Your task to perform on an android device: Go to accessibility settings Image 0: 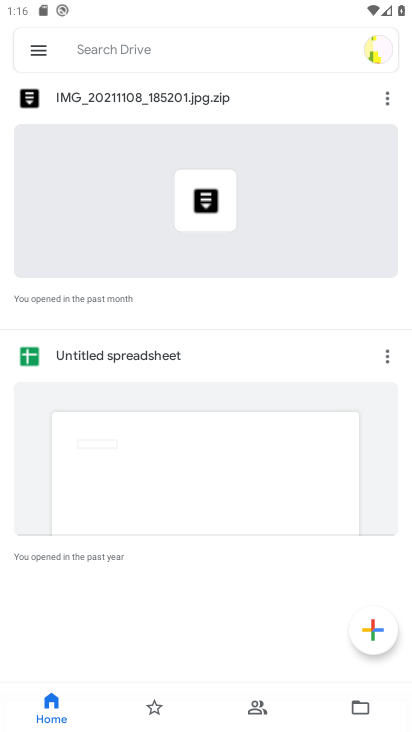
Step 0: press back button
Your task to perform on an android device: Go to accessibility settings Image 1: 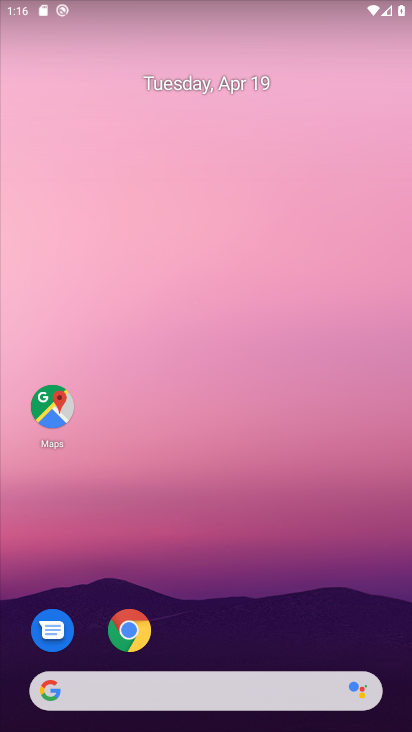
Step 1: drag from (243, 585) to (317, 26)
Your task to perform on an android device: Go to accessibility settings Image 2: 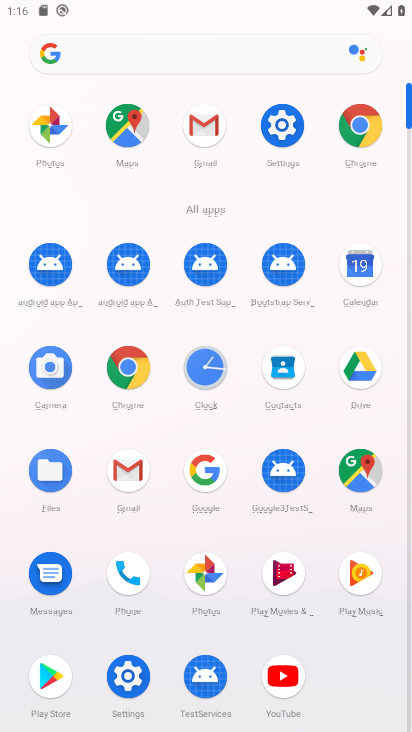
Step 2: click (291, 124)
Your task to perform on an android device: Go to accessibility settings Image 3: 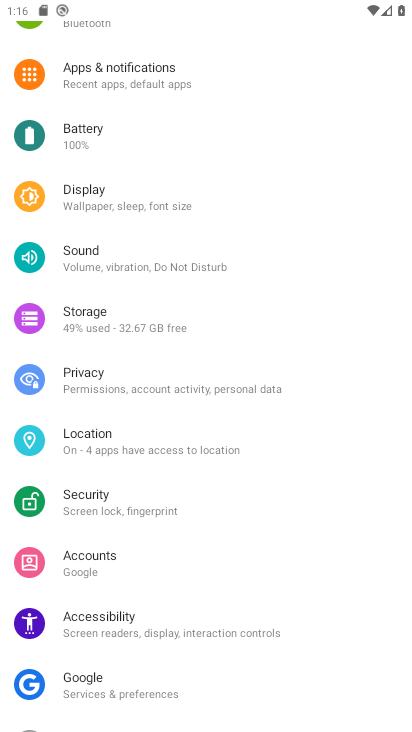
Step 3: click (173, 616)
Your task to perform on an android device: Go to accessibility settings Image 4: 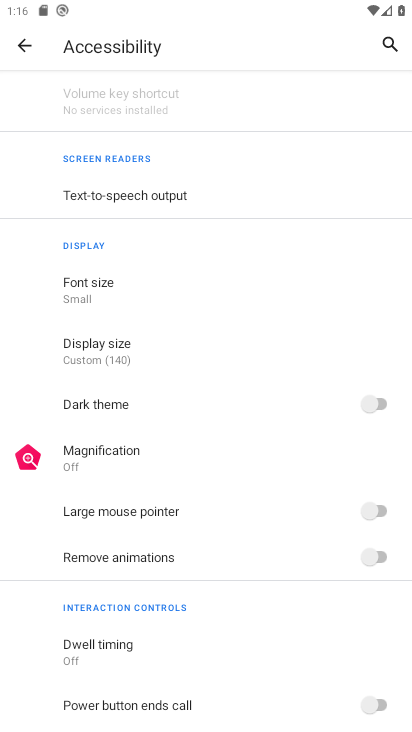
Step 4: task complete